Your task to perform on an android device: Open Android settings Image 0: 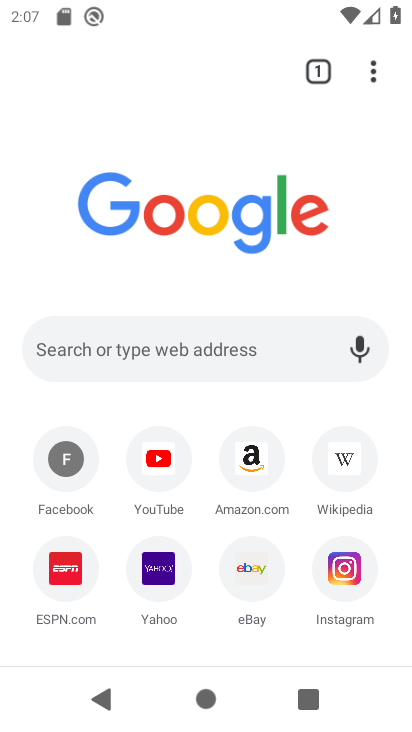
Step 0: press home button
Your task to perform on an android device: Open Android settings Image 1: 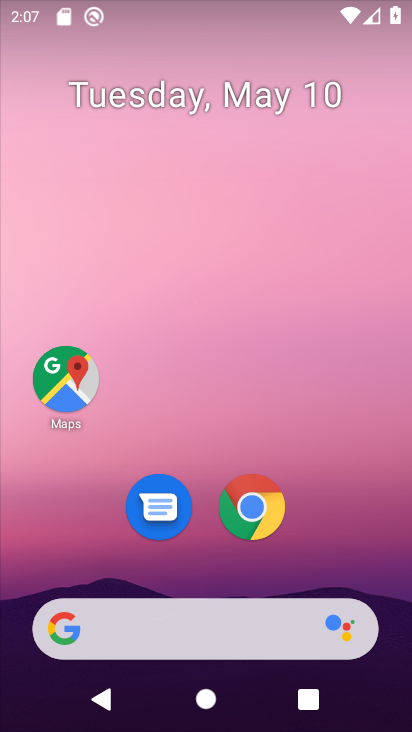
Step 1: drag from (228, 588) to (213, 170)
Your task to perform on an android device: Open Android settings Image 2: 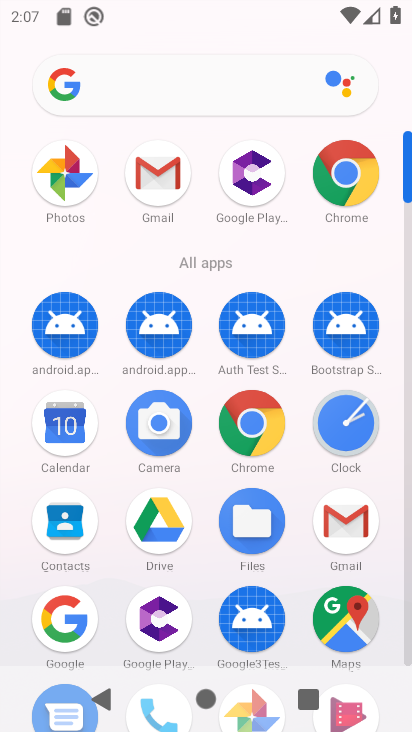
Step 2: drag from (206, 585) to (216, 175)
Your task to perform on an android device: Open Android settings Image 3: 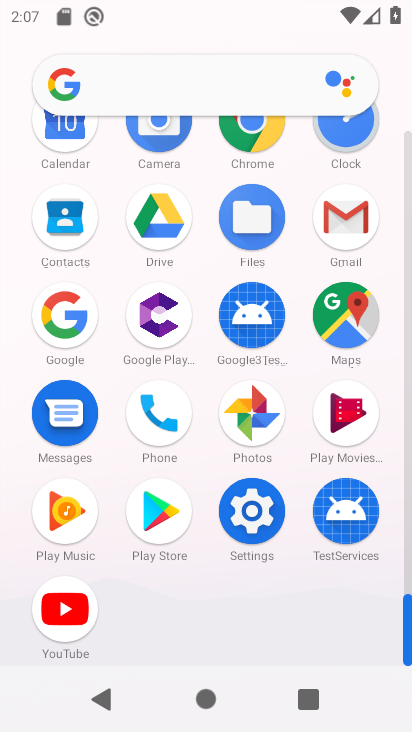
Step 3: click (255, 513)
Your task to perform on an android device: Open Android settings Image 4: 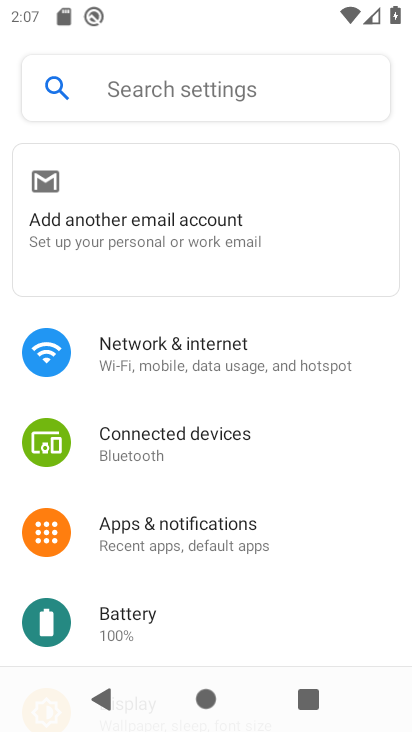
Step 4: task complete